Your task to perform on an android device: Go to location settings Image 0: 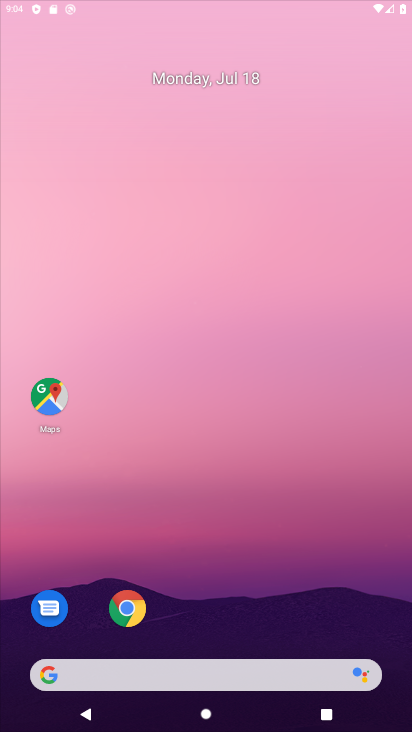
Step 0: press home button
Your task to perform on an android device: Go to location settings Image 1: 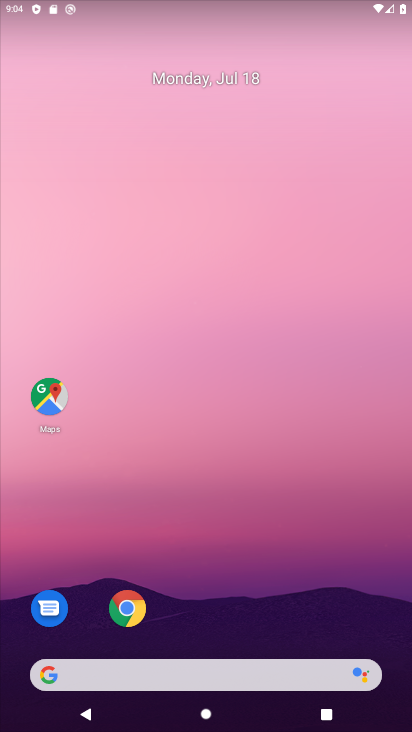
Step 1: drag from (222, 644) to (233, 38)
Your task to perform on an android device: Go to location settings Image 2: 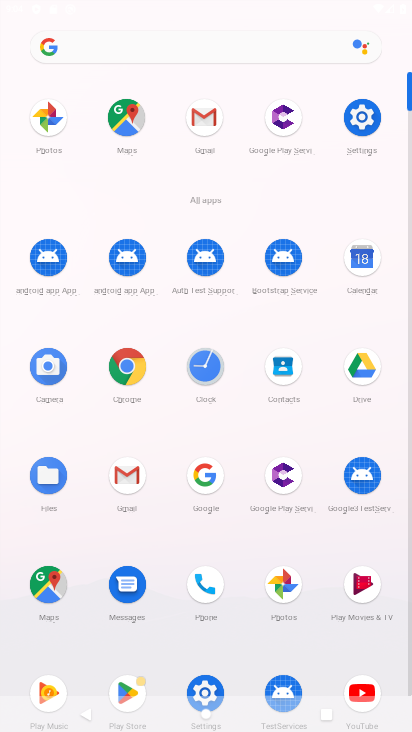
Step 2: click (359, 112)
Your task to perform on an android device: Go to location settings Image 3: 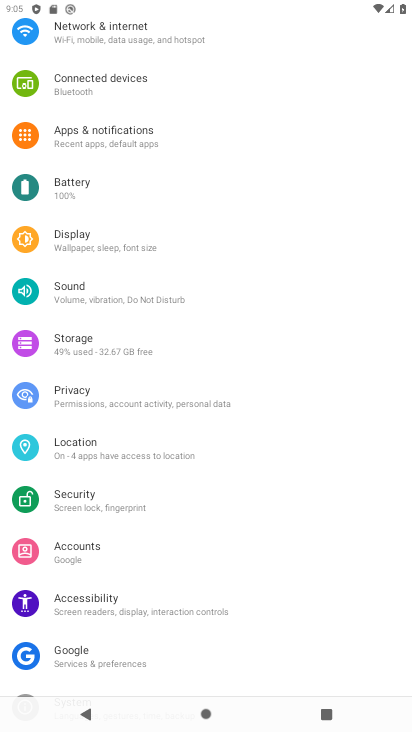
Step 3: click (103, 446)
Your task to perform on an android device: Go to location settings Image 4: 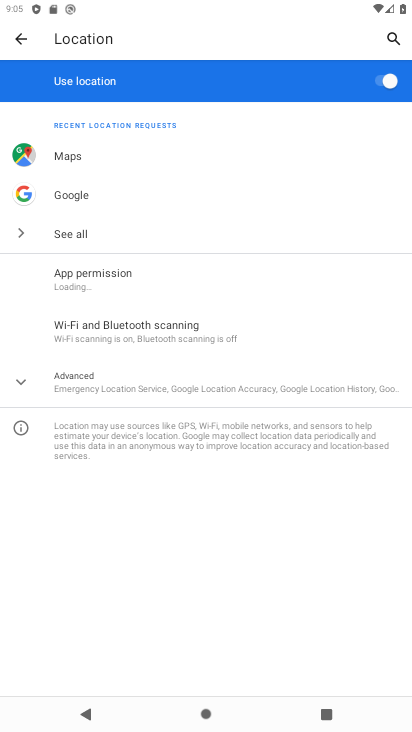
Step 4: click (43, 378)
Your task to perform on an android device: Go to location settings Image 5: 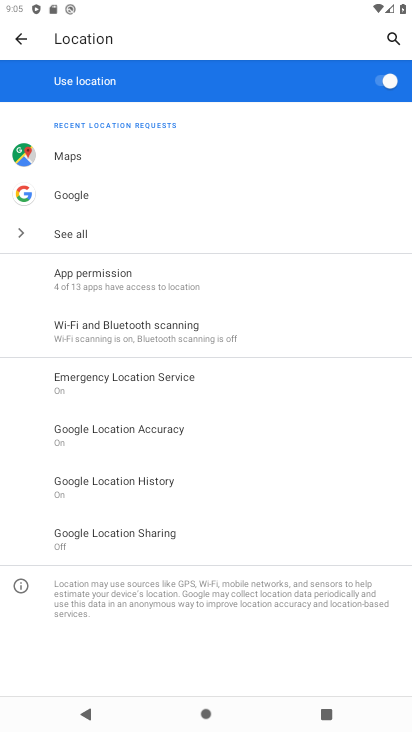
Step 5: task complete